Your task to perform on an android device: Add usb-c to the cart on ebay.com Image 0: 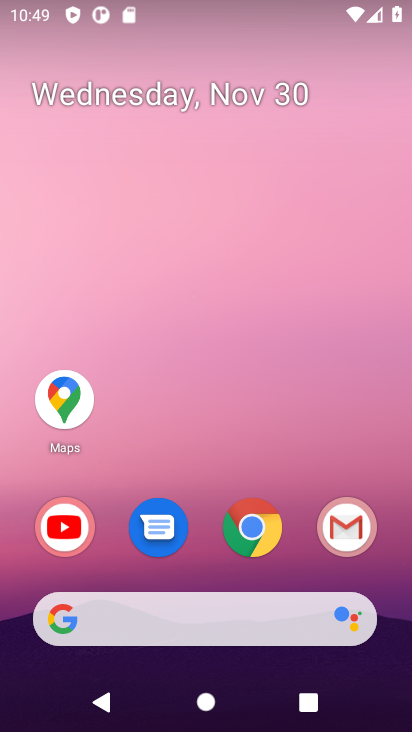
Step 0: click (245, 525)
Your task to perform on an android device: Add usb-c to the cart on ebay.com Image 1: 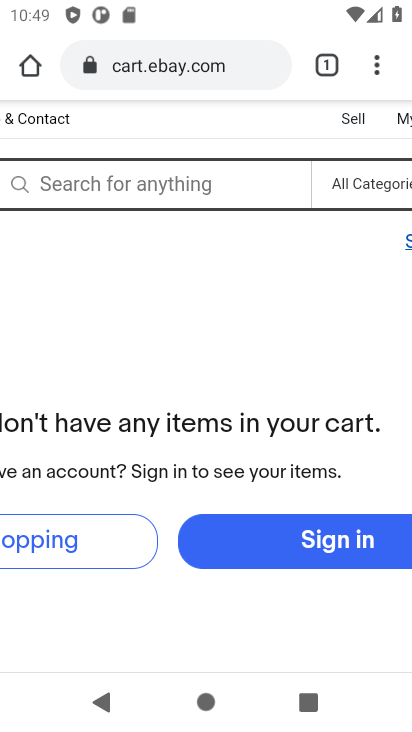
Step 1: click (80, 188)
Your task to perform on an android device: Add usb-c to the cart on ebay.com Image 2: 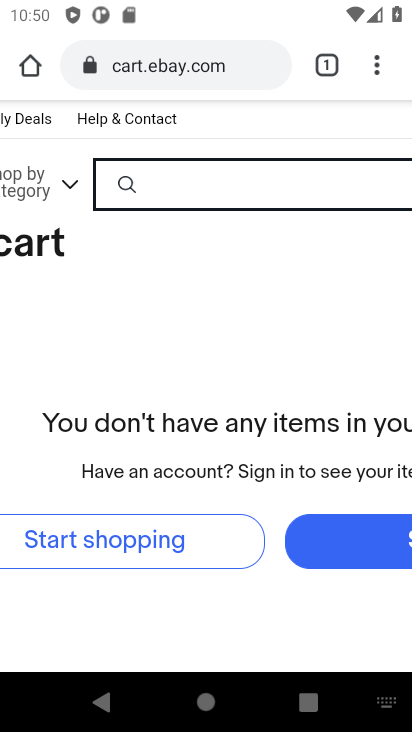
Step 2: type "usb-c "
Your task to perform on an android device: Add usb-c to the cart on ebay.com Image 3: 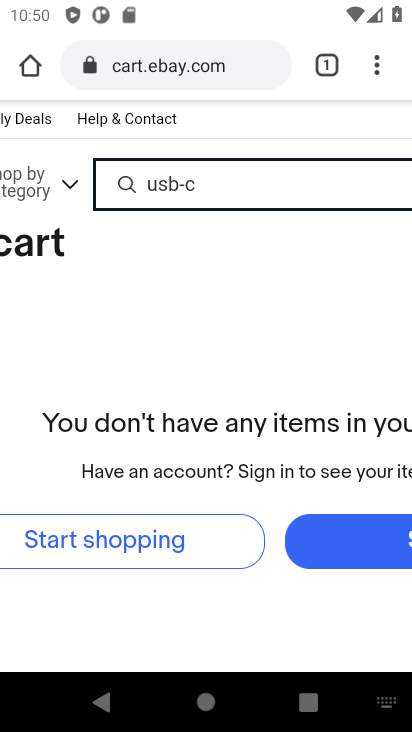
Step 3: drag from (275, 257) to (16, 220)
Your task to perform on an android device: Add usb-c to the cart on ebay.com Image 4: 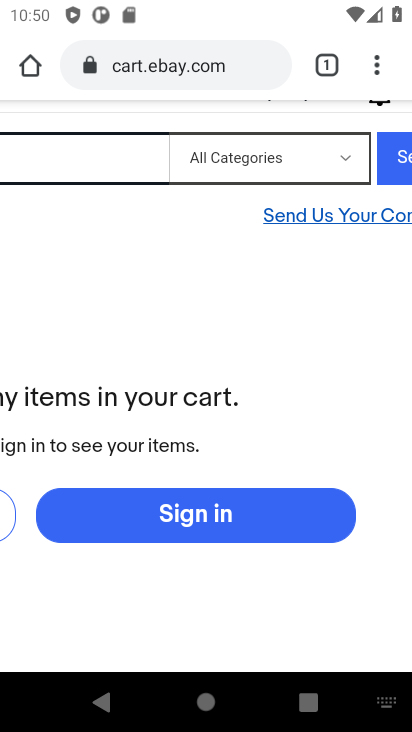
Step 4: click (401, 167)
Your task to perform on an android device: Add usb-c to the cart on ebay.com Image 5: 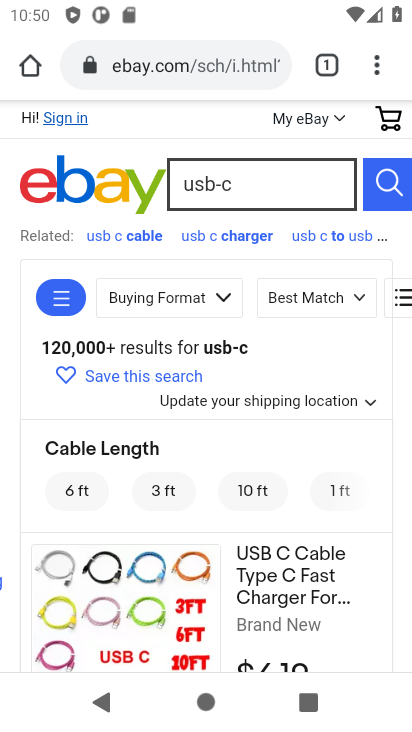
Step 5: drag from (215, 495) to (205, 250)
Your task to perform on an android device: Add usb-c to the cart on ebay.com Image 6: 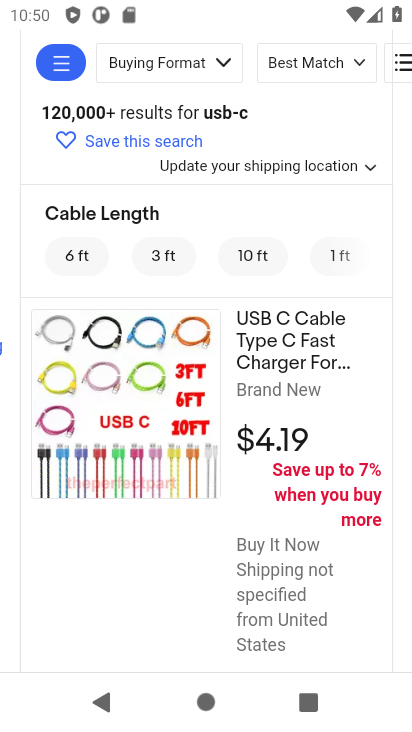
Step 6: click (185, 407)
Your task to perform on an android device: Add usb-c to the cart on ebay.com Image 7: 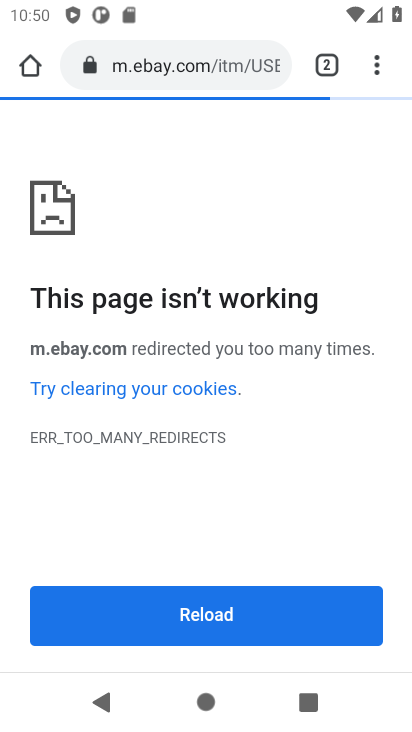
Step 7: task complete